Your task to perform on an android device: Search for seafood restaurants on Google Maps Image 0: 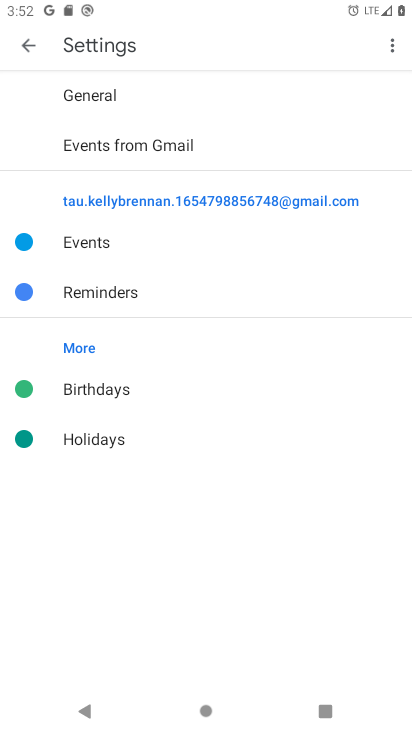
Step 0: press home button
Your task to perform on an android device: Search for seafood restaurants on Google Maps Image 1: 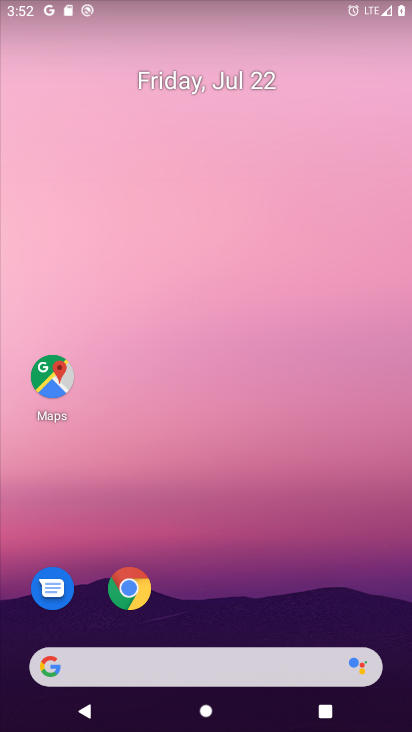
Step 1: drag from (291, 612) to (243, 58)
Your task to perform on an android device: Search for seafood restaurants on Google Maps Image 2: 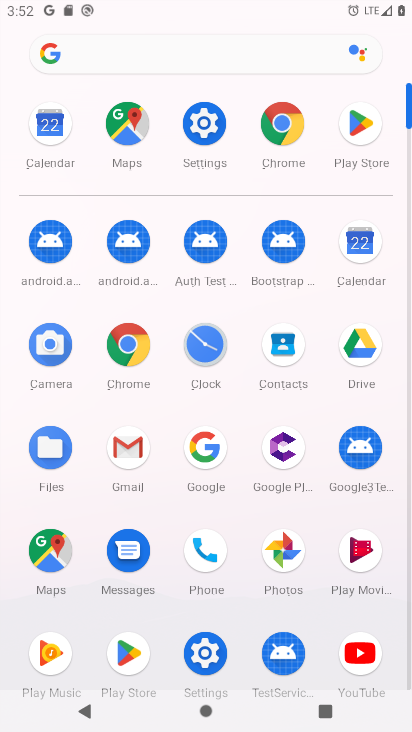
Step 2: click (50, 548)
Your task to perform on an android device: Search for seafood restaurants on Google Maps Image 3: 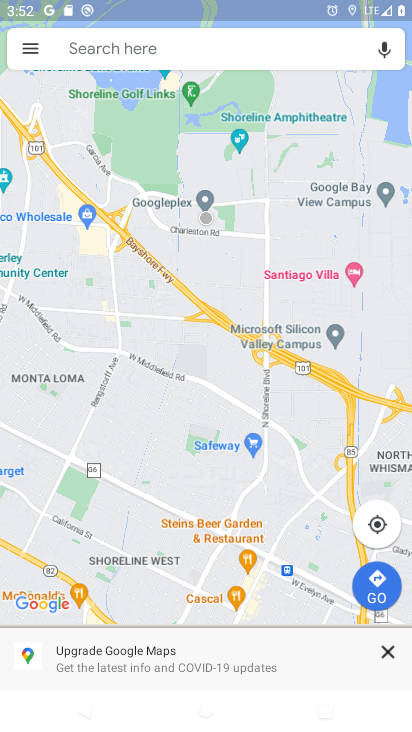
Step 3: click (67, 41)
Your task to perform on an android device: Search for seafood restaurants on Google Maps Image 4: 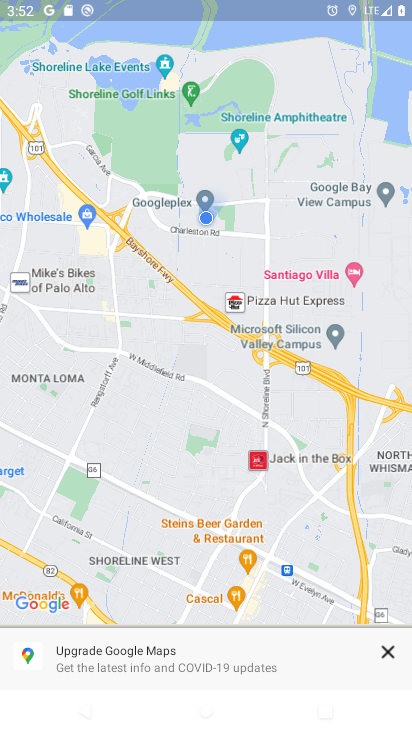
Step 4: click (391, 653)
Your task to perform on an android device: Search for seafood restaurants on Google Maps Image 5: 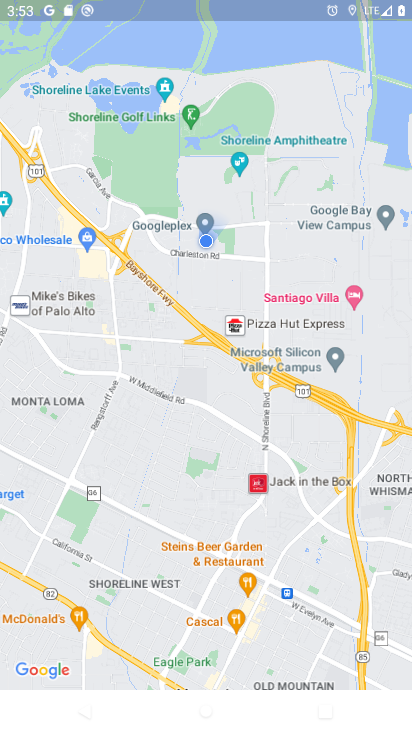
Step 5: press home button
Your task to perform on an android device: Search for seafood restaurants on Google Maps Image 6: 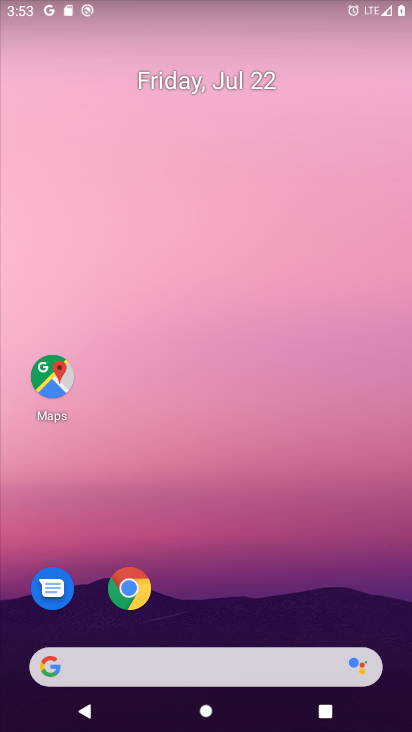
Step 6: drag from (235, 580) to (199, 0)
Your task to perform on an android device: Search for seafood restaurants on Google Maps Image 7: 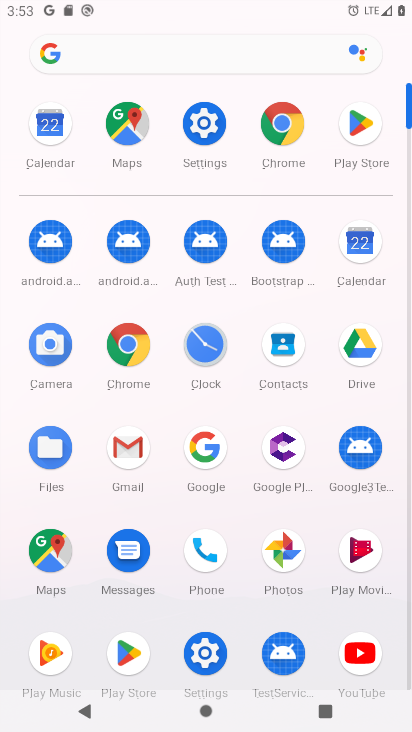
Step 7: click (120, 112)
Your task to perform on an android device: Search for seafood restaurants on Google Maps Image 8: 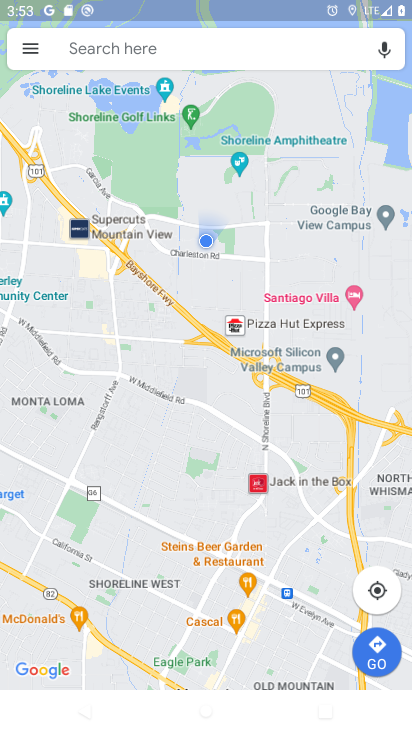
Step 8: click (140, 59)
Your task to perform on an android device: Search for seafood restaurants on Google Maps Image 9: 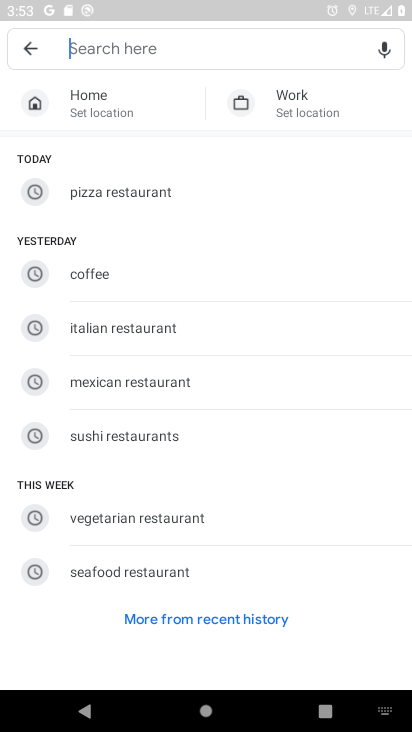
Step 9: type " seafood restaurants"
Your task to perform on an android device: Search for seafood restaurants on Google Maps Image 10: 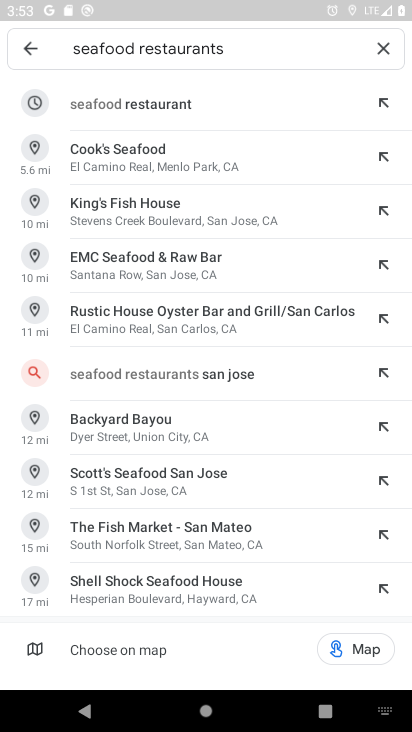
Step 10: click (181, 96)
Your task to perform on an android device: Search for seafood restaurants on Google Maps Image 11: 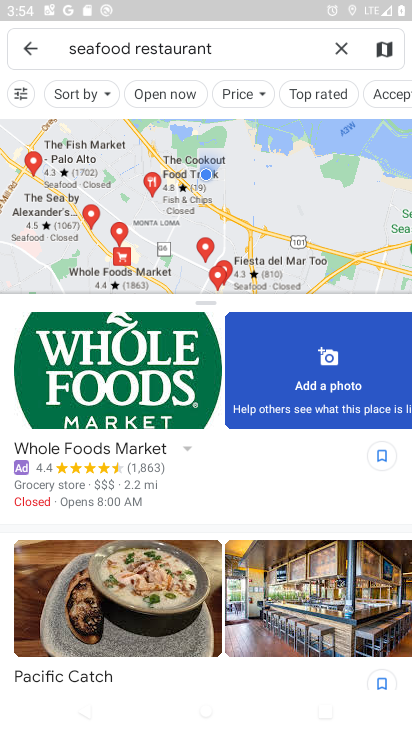
Step 11: task complete